Your task to perform on an android device: Play the last video I watched on Youtube Image 0: 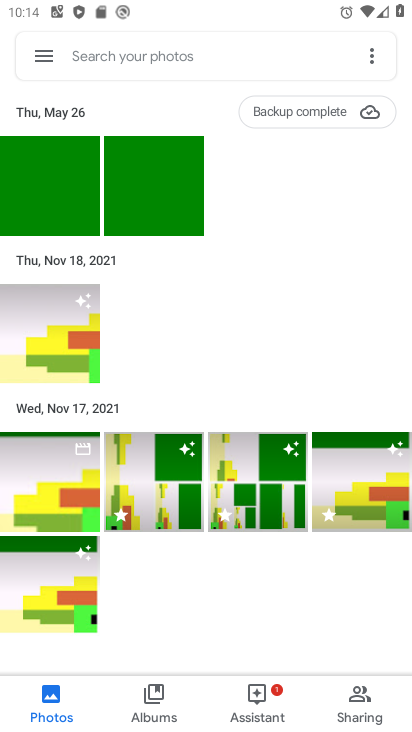
Step 0: press home button
Your task to perform on an android device: Play the last video I watched on Youtube Image 1: 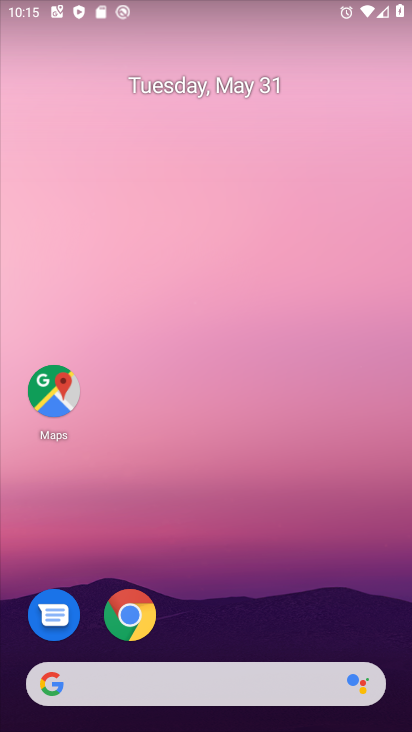
Step 1: drag from (349, 588) to (376, 238)
Your task to perform on an android device: Play the last video I watched on Youtube Image 2: 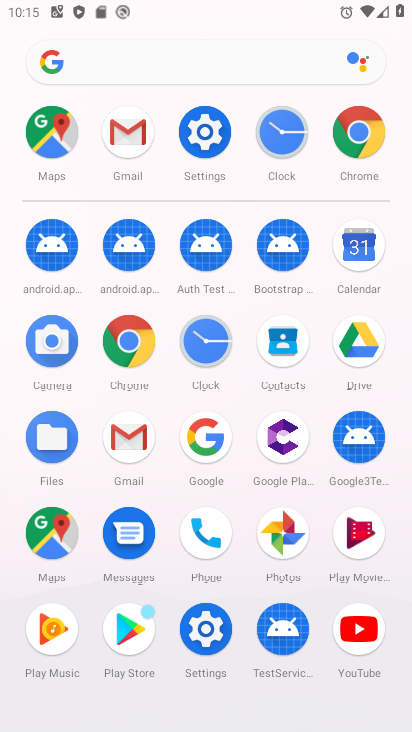
Step 2: click (365, 633)
Your task to perform on an android device: Play the last video I watched on Youtube Image 3: 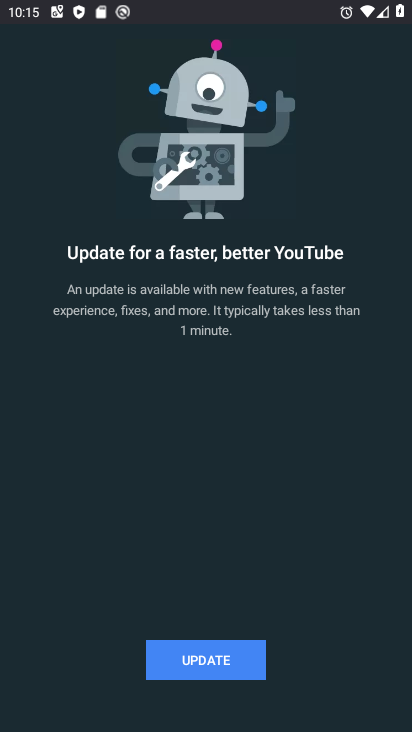
Step 3: click (212, 662)
Your task to perform on an android device: Play the last video I watched on Youtube Image 4: 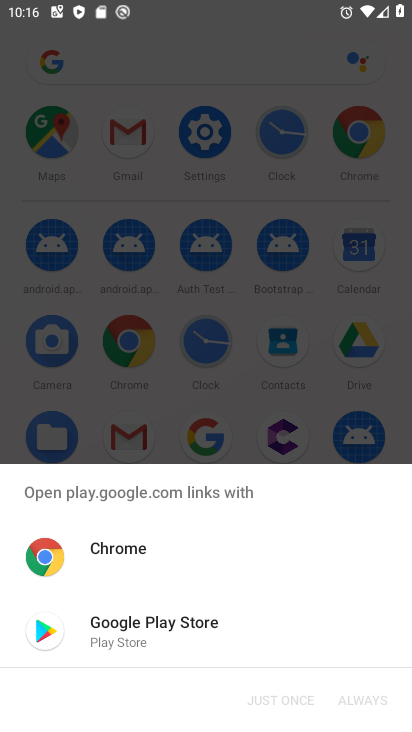
Step 4: click (84, 627)
Your task to perform on an android device: Play the last video I watched on Youtube Image 5: 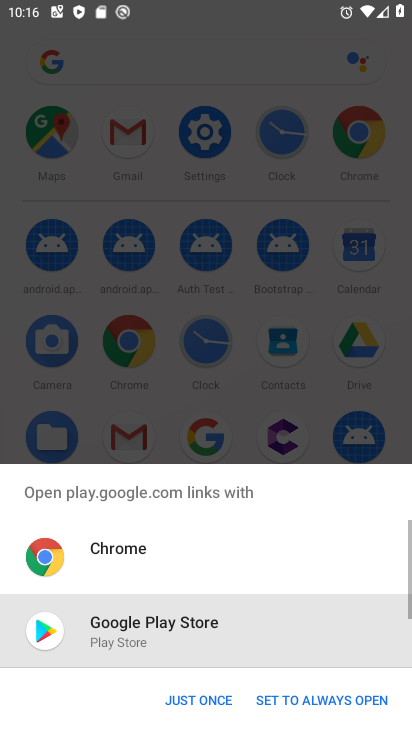
Step 5: click (185, 701)
Your task to perform on an android device: Play the last video I watched on Youtube Image 6: 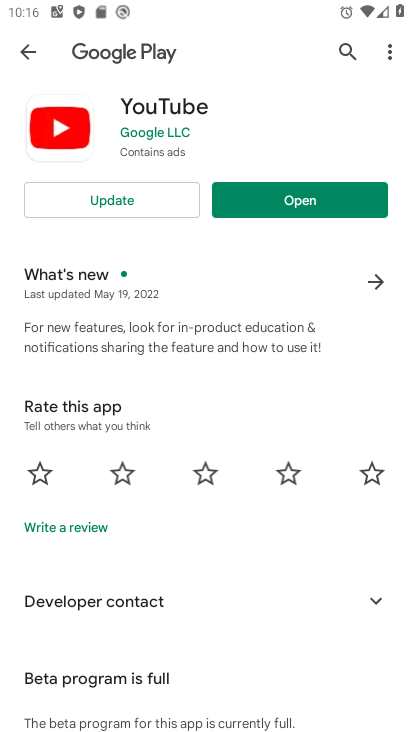
Step 6: click (104, 199)
Your task to perform on an android device: Play the last video I watched on Youtube Image 7: 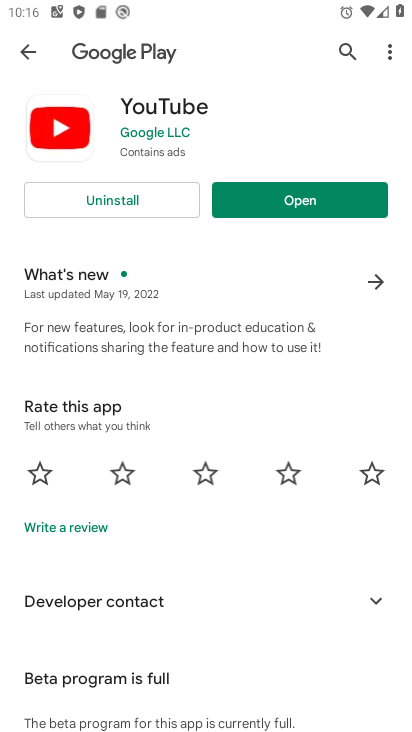
Step 7: click (268, 198)
Your task to perform on an android device: Play the last video I watched on Youtube Image 8: 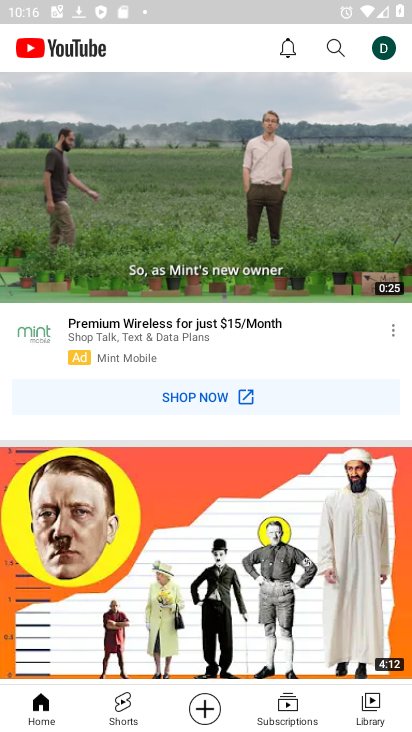
Step 8: click (376, 703)
Your task to perform on an android device: Play the last video I watched on Youtube Image 9: 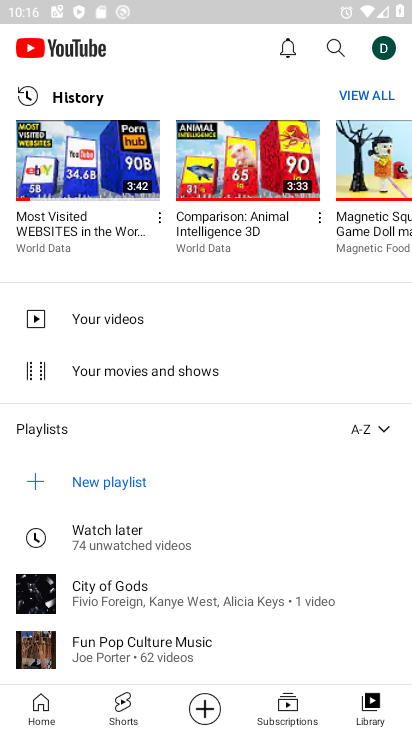
Step 9: click (71, 162)
Your task to perform on an android device: Play the last video I watched on Youtube Image 10: 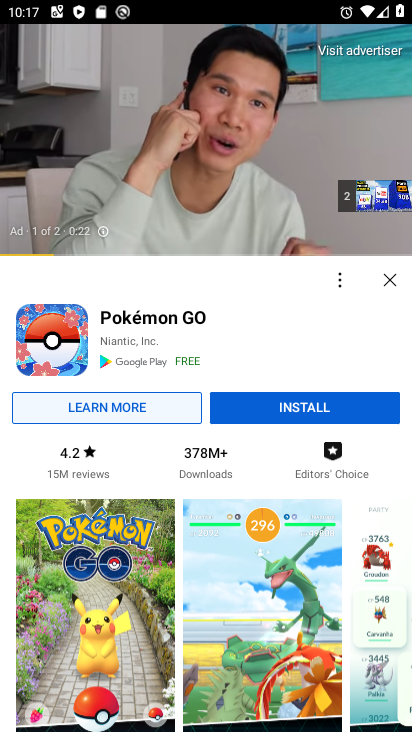
Step 10: click (388, 278)
Your task to perform on an android device: Play the last video I watched on Youtube Image 11: 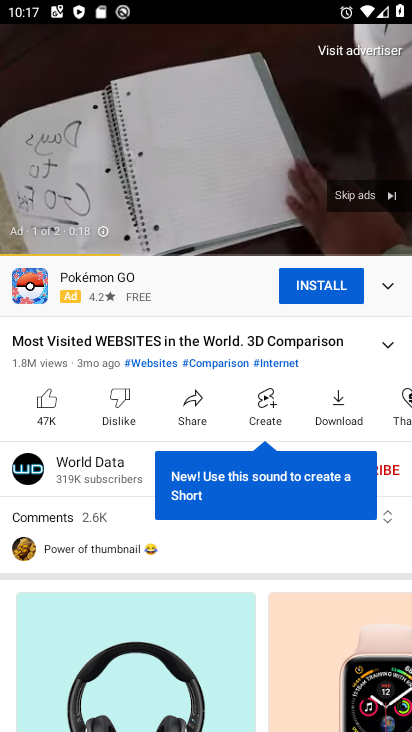
Step 11: task complete